Your task to perform on an android device: turn off smart reply in the gmail app Image 0: 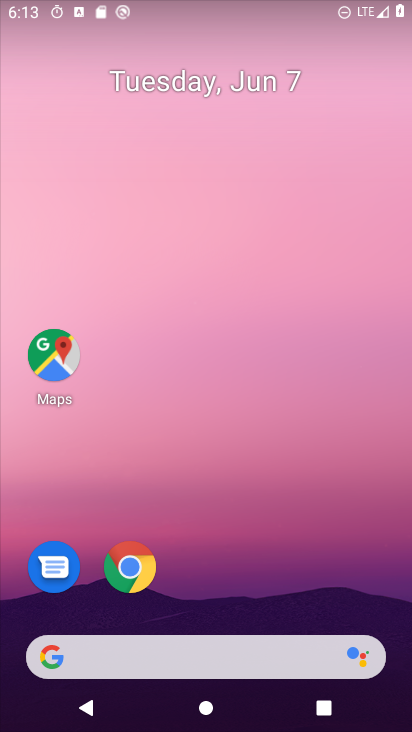
Step 0: drag from (179, 671) to (217, 106)
Your task to perform on an android device: turn off smart reply in the gmail app Image 1: 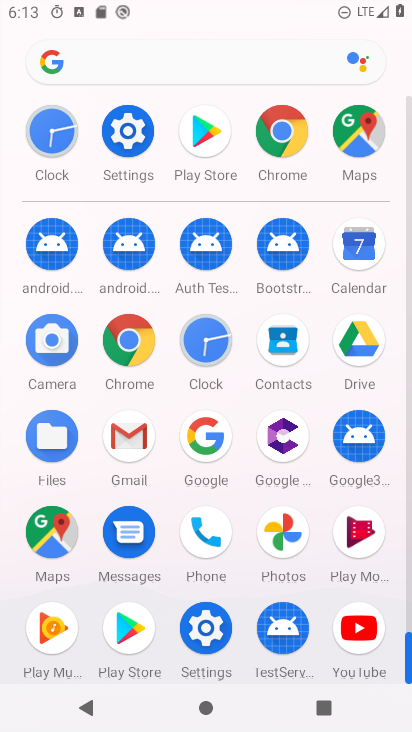
Step 1: click (138, 145)
Your task to perform on an android device: turn off smart reply in the gmail app Image 2: 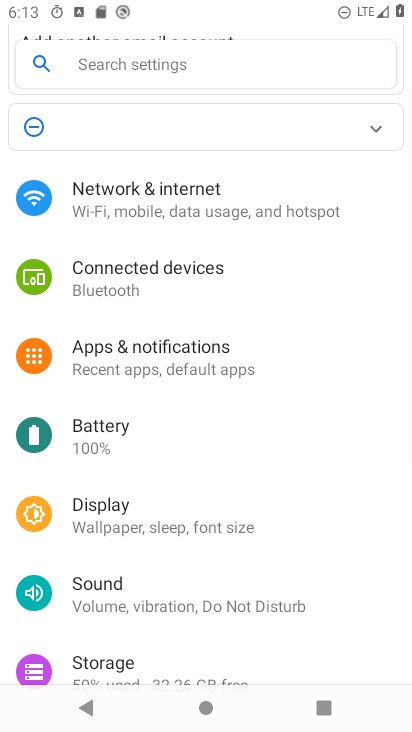
Step 2: press home button
Your task to perform on an android device: turn off smart reply in the gmail app Image 3: 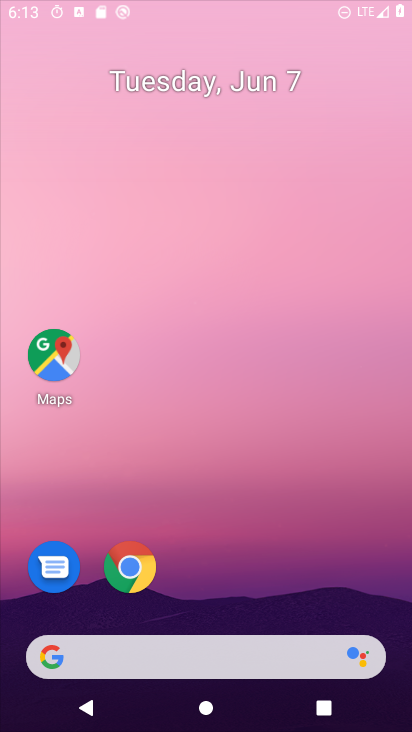
Step 3: drag from (217, 683) to (230, 217)
Your task to perform on an android device: turn off smart reply in the gmail app Image 4: 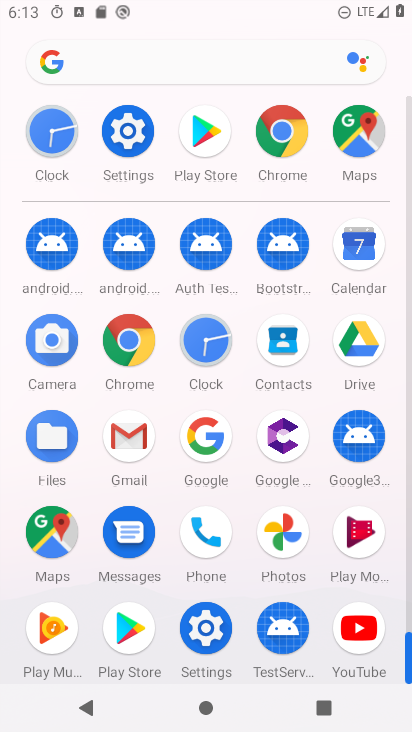
Step 4: click (119, 442)
Your task to perform on an android device: turn off smart reply in the gmail app Image 5: 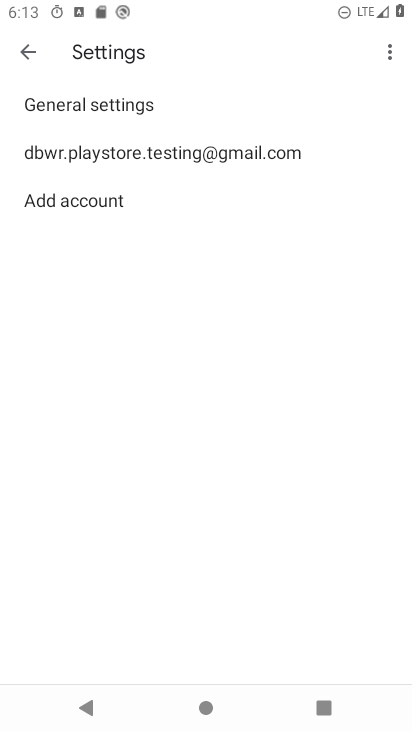
Step 5: click (68, 157)
Your task to perform on an android device: turn off smart reply in the gmail app Image 6: 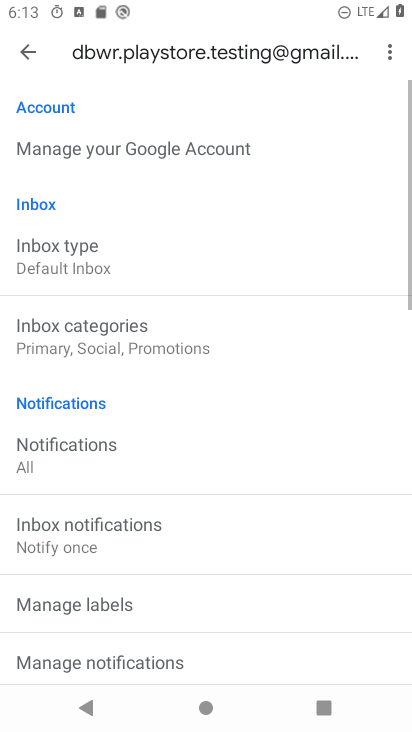
Step 6: drag from (140, 600) to (207, 196)
Your task to perform on an android device: turn off smart reply in the gmail app Image 7: 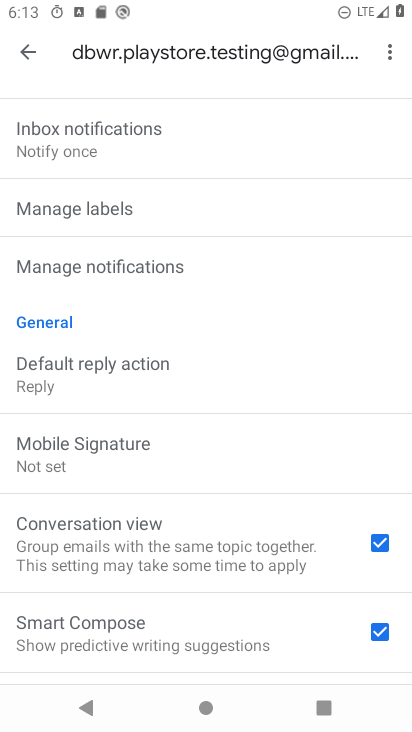
Step 7: drag from (158, 636) to (226, 345)
Your task to perform on an android device: turn off smart reply in the gmail app Image 8: 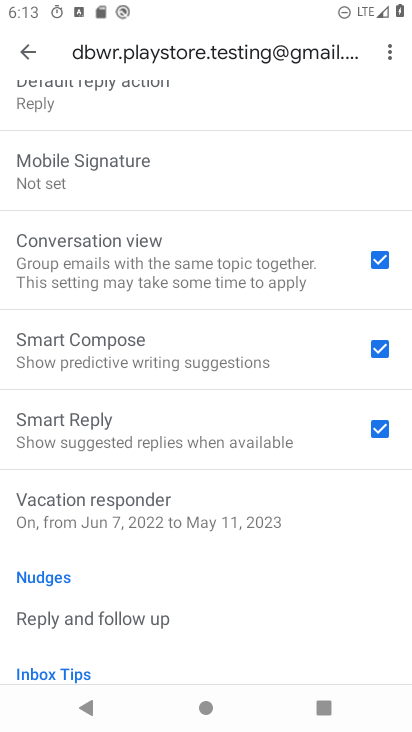
Step 8: click (372, 437)
Your task to perform on an android device: turn off smart reply in the gmail app Image 9: 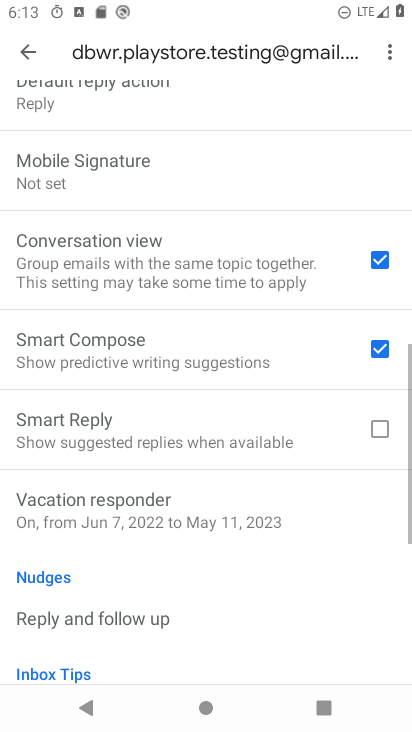
Step 9: task complete